Your task to perform on an android device: Open Youtube and go to "Your channel" Image 0: 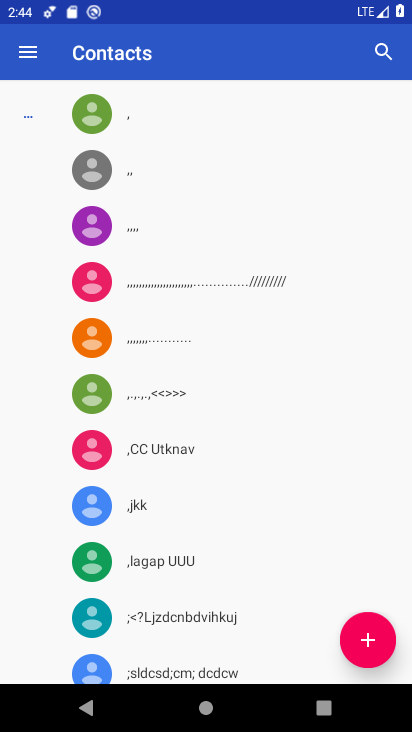
Step 0: click (267, 565)
Your task to perform on an android device: Open Youtube and go to "Your channel" Image 1: 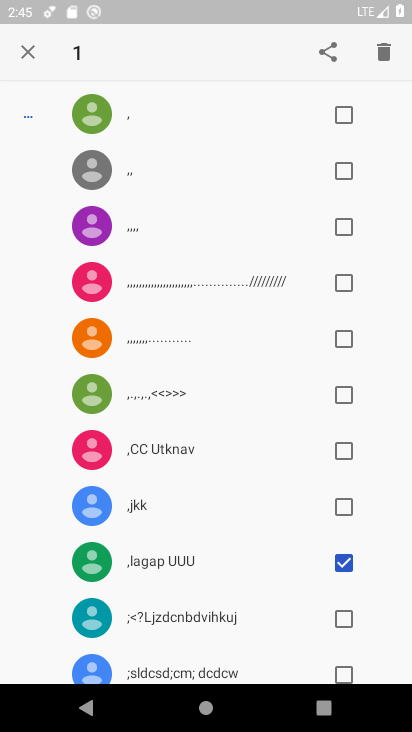
Step 1: press home button
Your task to perform on an android device: Open Youtube and go to "Your channel" Image 2: 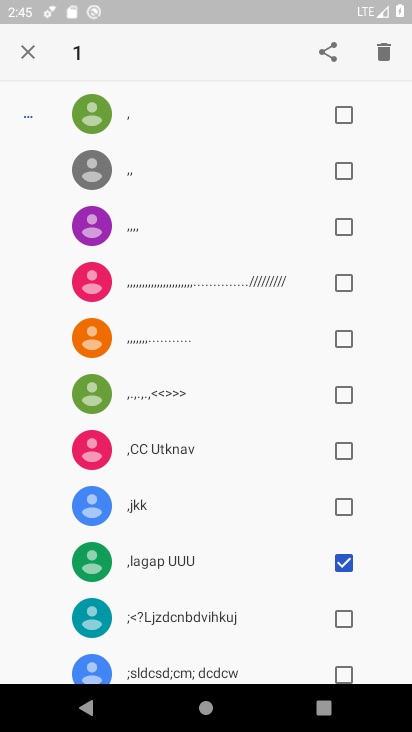
Step 2: click (402, 487)
Your task to perform on an android device: Open Youtube and go to "Your channel" Image 3: 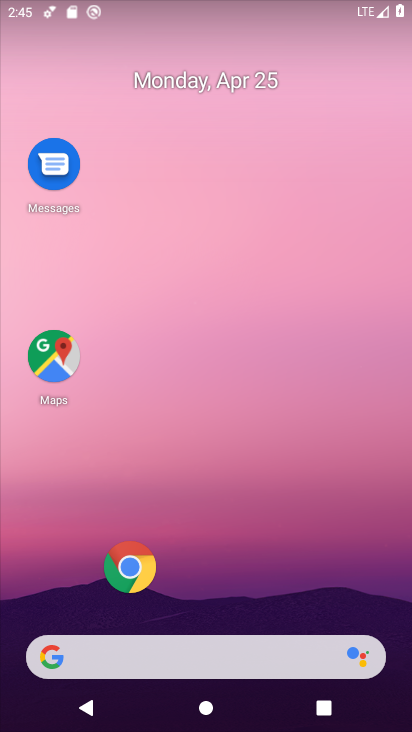
Step 3: drag from (213, 600) to (235, 7)
Your task to perform on an android device: Open Youtube and go to "Your channel" Image 4: 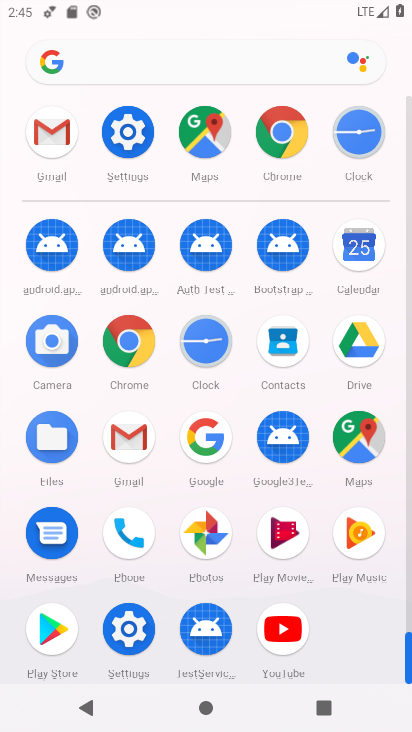
Step 4: click (294, 654)
Your task to perform on an android device: Open Youtube and go to "Your channel" Image 5: 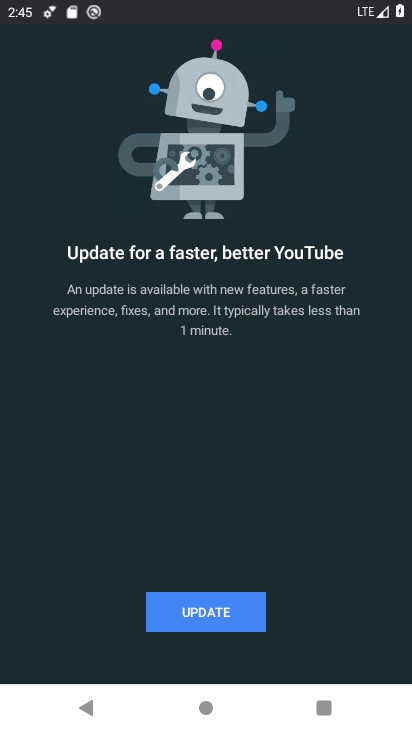
Step 5: click (242, 630)
Your task to perform on an android device: Open Youtube and go to "Your channel" Image 6: 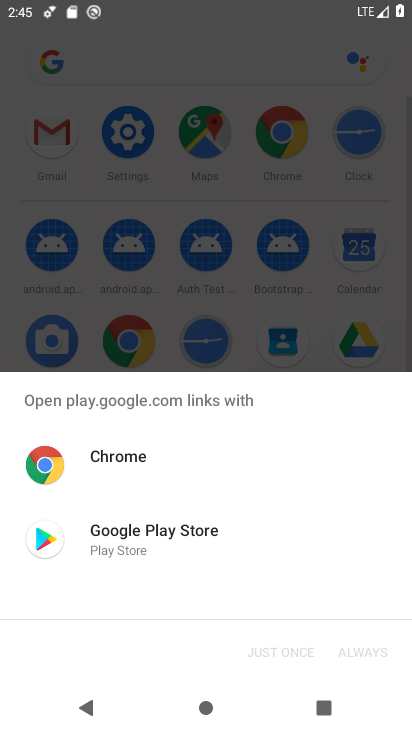
Step 6: click (395, 316)
Your task to perform on an android device: Open Youtube and go to "Your channel" Image 7: 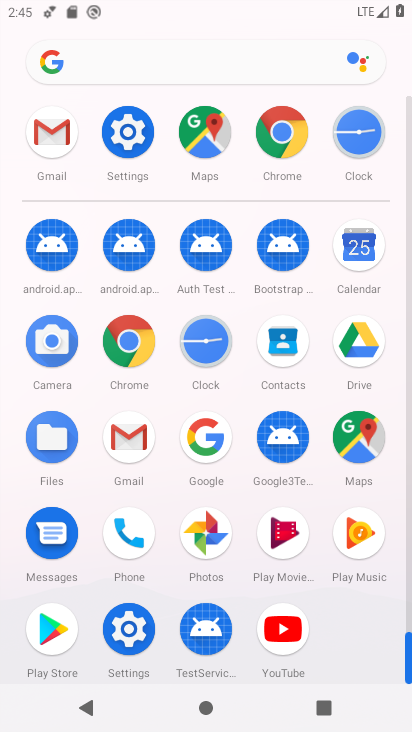
Step 7: click (283, 633)
Your task to perform on an android device: Open Youtube and go to "Your channel" Image 8: 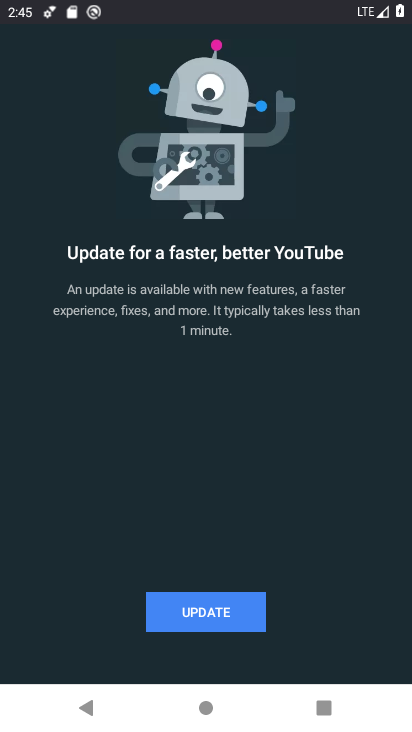
Step 8: task complete